Your task to perform on an android device: Do I have any events tomorrow? Image 0: 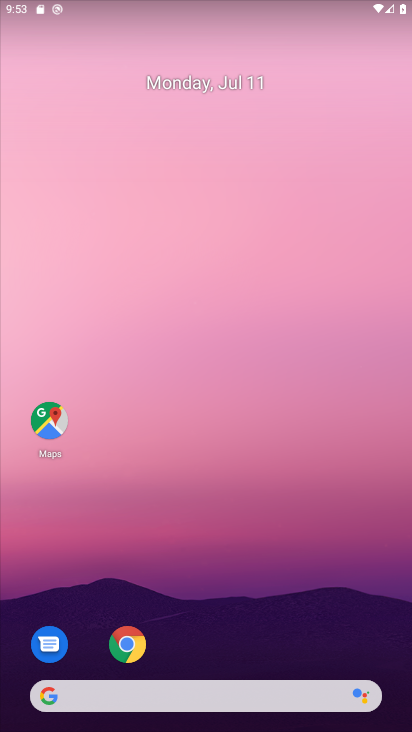
Step 0: drag from (383, 651) to (387, 51)
Your task to perform on an android device: Do I have any events tomorrow? Image 1: 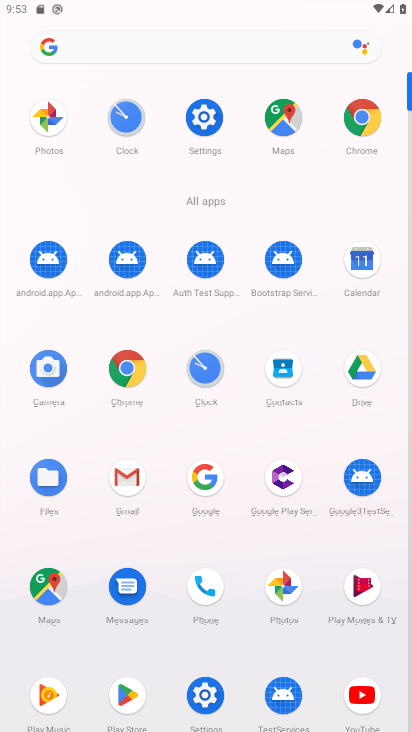
Step 1: click (361, 257)
Your task to perform on an android device: Do I have any events tomorrow? Image 2: 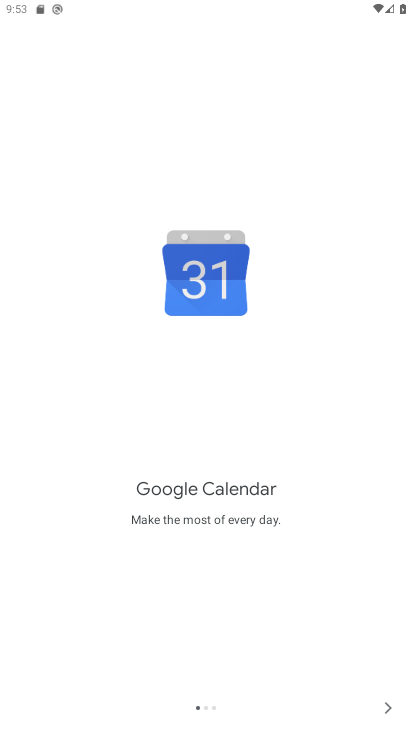
Step 2: click (390, 706)
Your task to perform on an android device: Do I have any events tomorrow? Image 3: 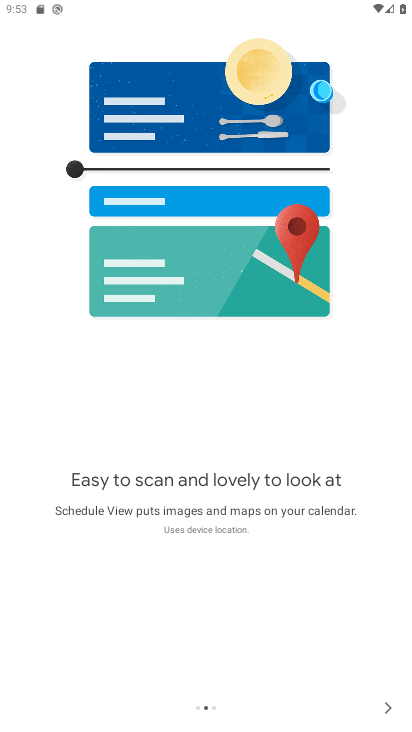
Step 3: click (390, 706)
Your task to perform on an android device: Do I have any events tomorrow? Image 4: 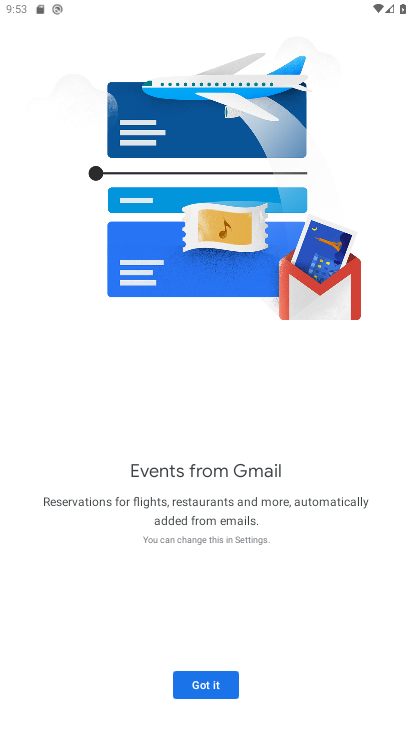
Step 4: click (193, 682)
Your task to perform on an android device: Do I have any events tomorrow? Image 5: 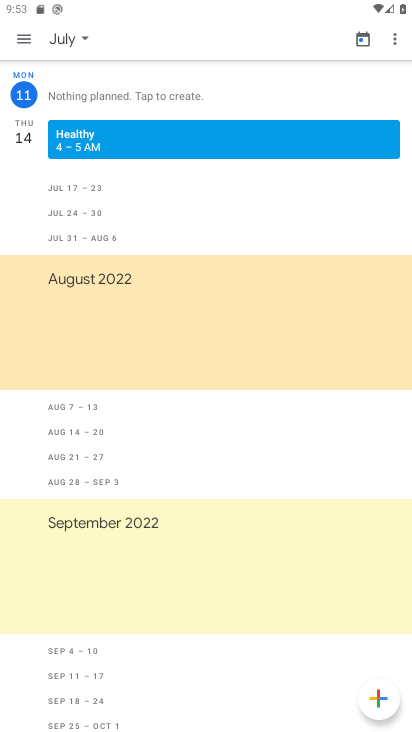
Step 5: click (70, 28)
Your task to perform on an android device: Do I have any events tomorrow? Image 6: 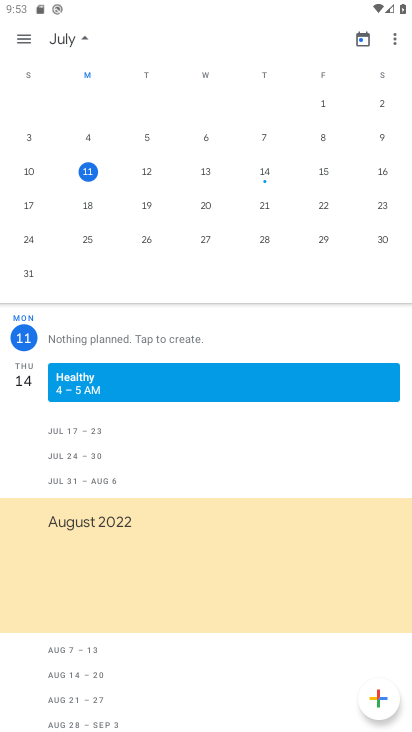
Step 6: click (207, 170)
Your task to perform on an android device: Do I have any events tomorrow? Image 7: 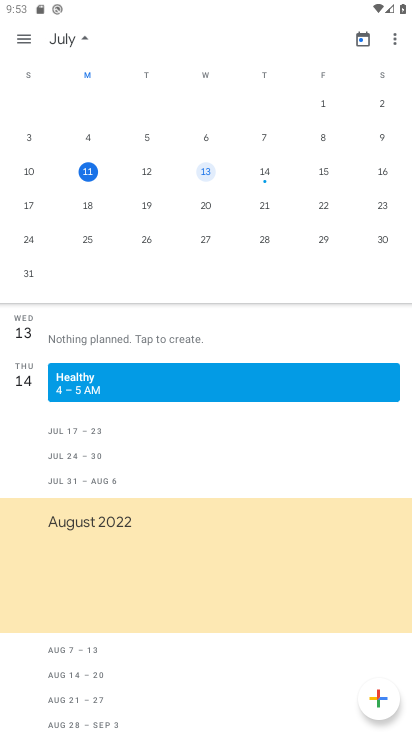
Step 7: task complete